Your task to perform on an android device: toggle improve location accuracy Image 0: 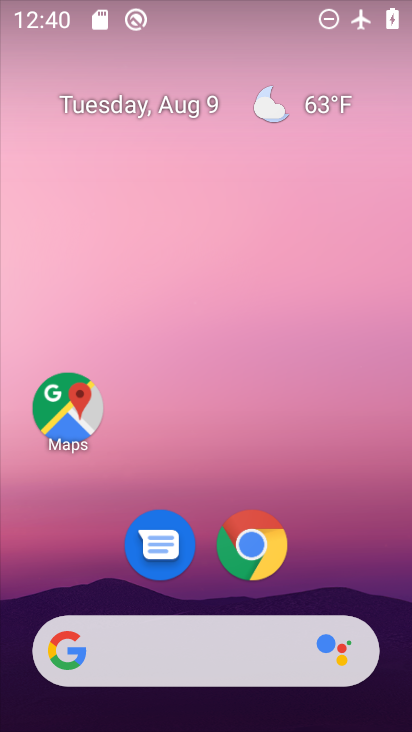
Step 0: drag from (177, 658) to (268, 86)
Your task to perform on an android device: toggle improve location accuracy Image 1: 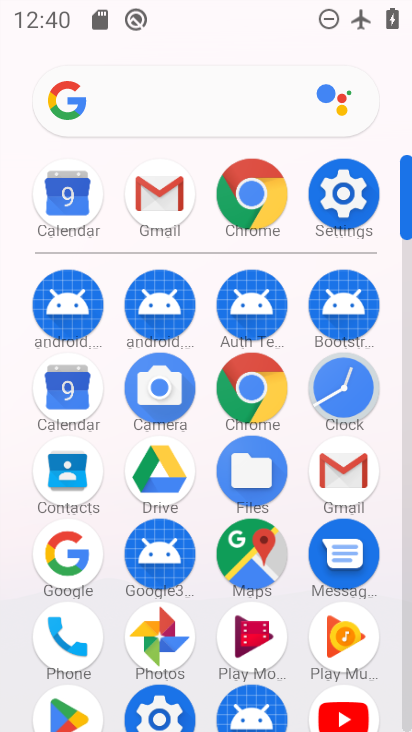
Step 1: click (343, 193)
Your task to perform on an android device: toggle improve location accuracy Image 2: 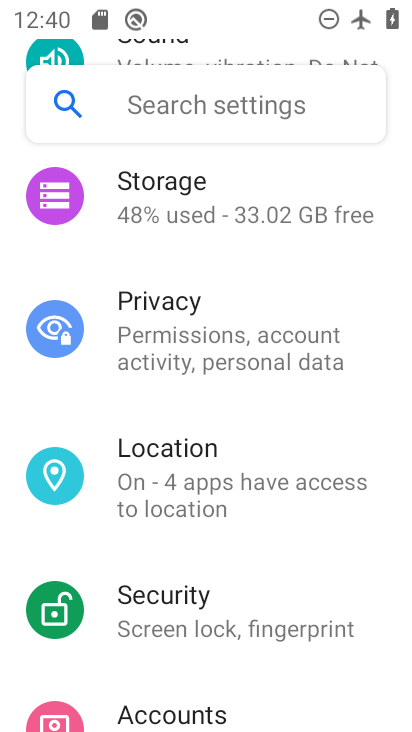
Step 2: drag from (187, 642) to (327, 458)
Your task to perform on an android device: toggle improve location accuracy Image 3: 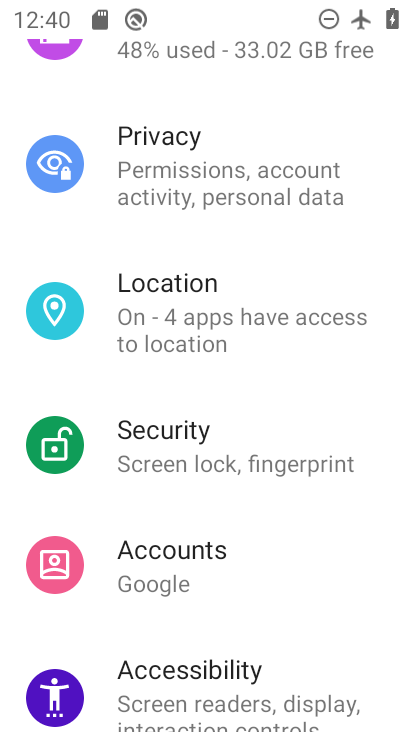
Step 3: click (245, 326)
Your task to perform on an android device: toggle improve location accuracy Image 4: 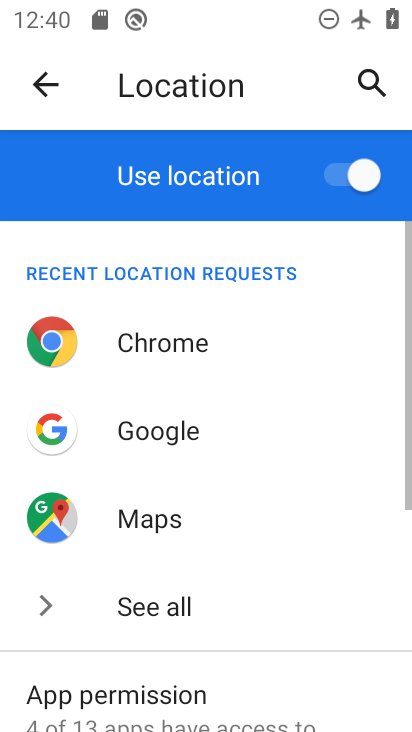
Step 4: drag from (236, 677) to (356, 287)
Your task to perform on an android device: toggle improve location accuracy Image 5: 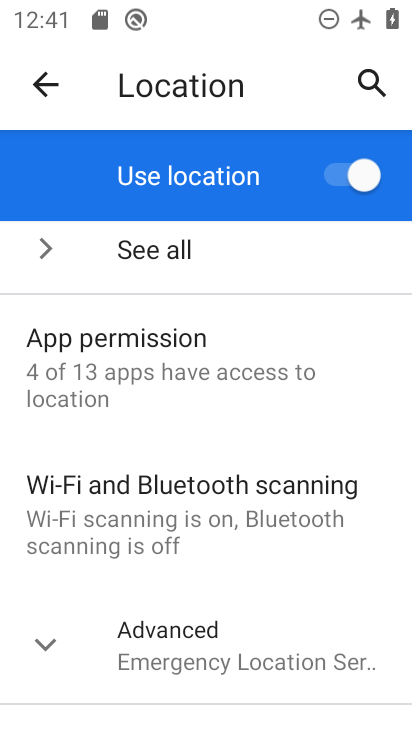
Step 5: click (210, 656)
Your task to perform on an android device: toggle improve location accuracy Image 6: 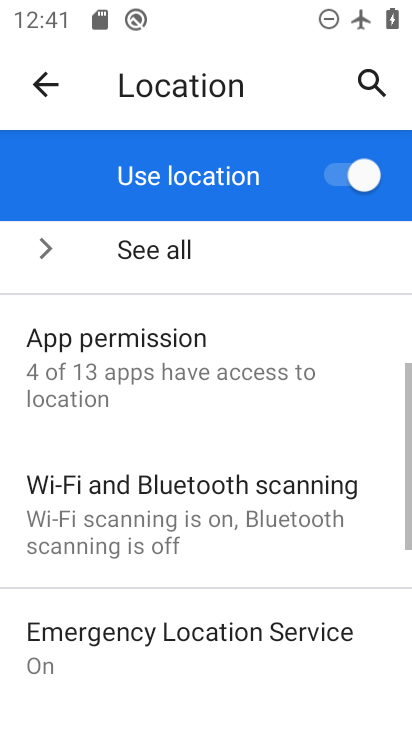
Step 6: drag from (210, 656) to (351, 403)
Your task to perform on an android device: toggle improve location accuracy Image 7: 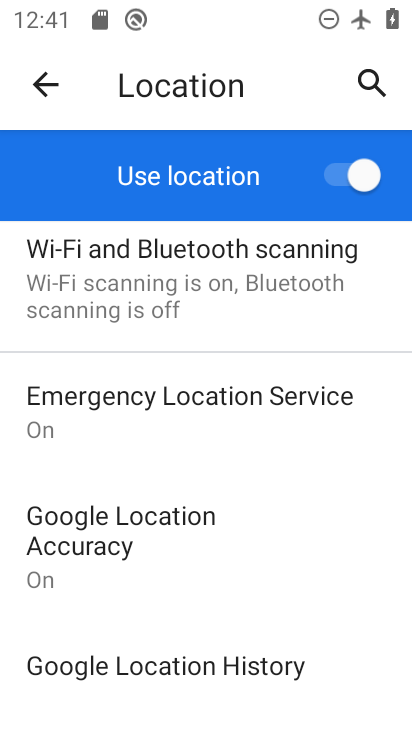
Step 7: click (133, 537)
Your task to perform on an android device: toggle improve location accuracy Image 8: 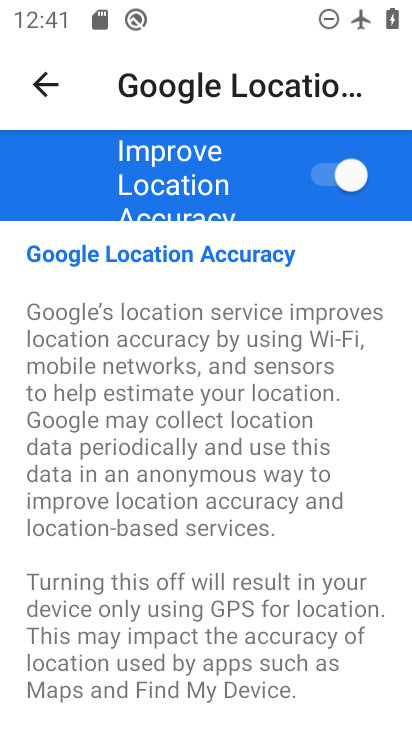
Step 8: click (326, 170)
Your task to perform on an android device: toggle improve location accuracy Image 9: 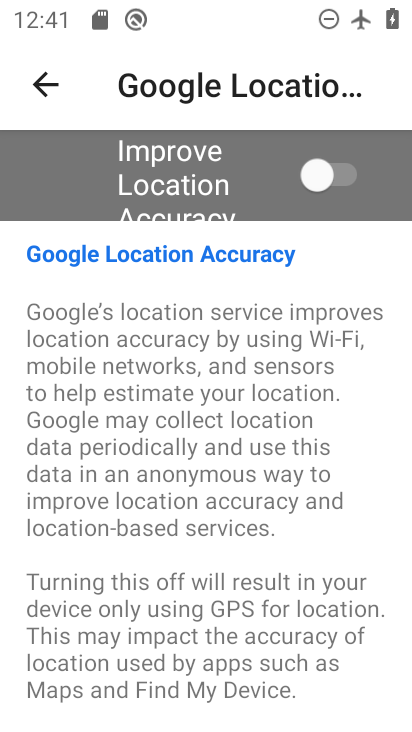
Step 9: task complete